Your task to perform on an android device: Search for dell xps on ebay, select the first entry, and add it to the cart. Image 0: 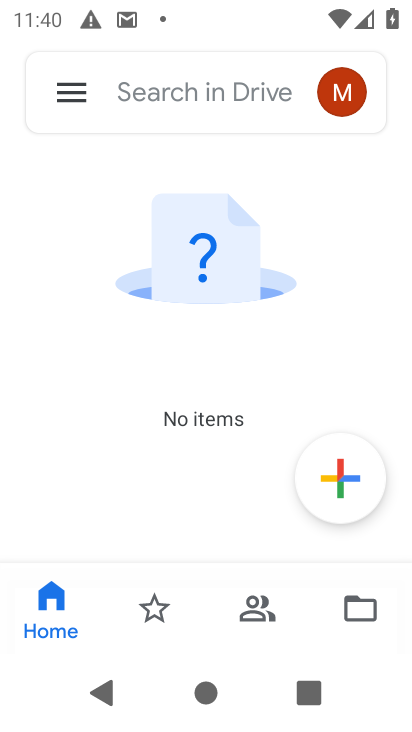
Step 0: press home button
Your task to perform on an android device: Search for dell xps on ebay, select the first entry, and add it to the cart. Image 1: 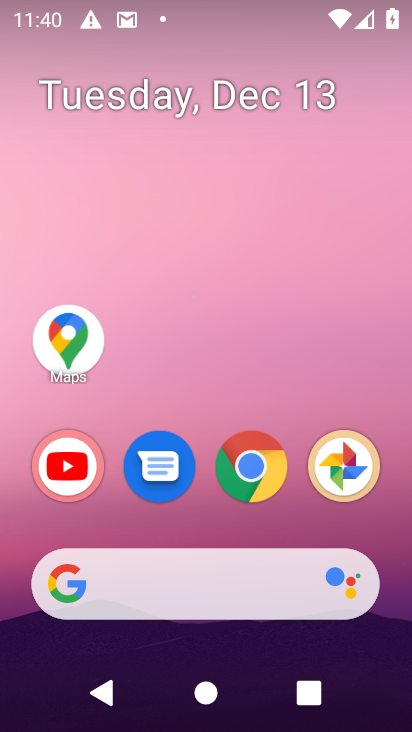
Step 1: click (156, 580)
Your task to perform on an android device: Search for dell xps on ebay, select the first entry, and add it to the cart. Image 2: 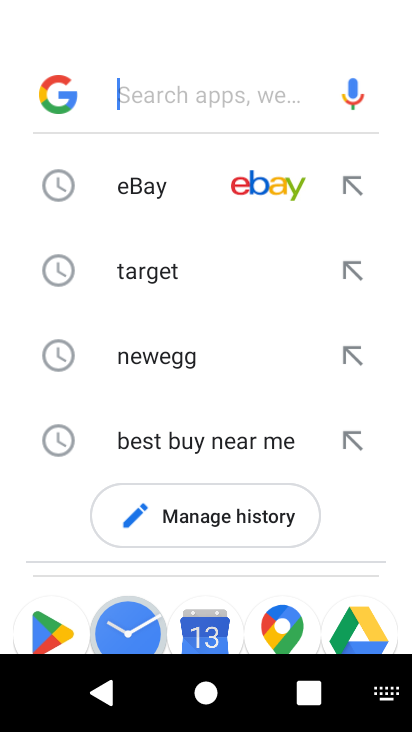
Step 2: click (120, 206)
Your task to perform on an android device: Search for dell xps on ebay, select the first entry, and add it to the cart. Image 3: 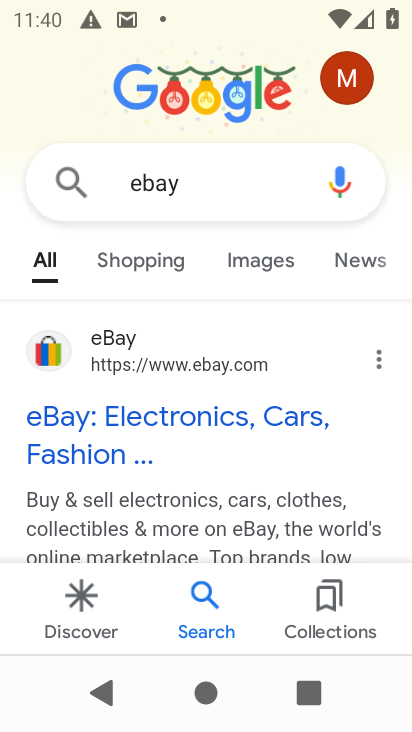
Step 3: click (147, 413)
Your task to perform on an android device: Search for dell xps on ebay, select the first entry, and add it to the cart. Image 4: 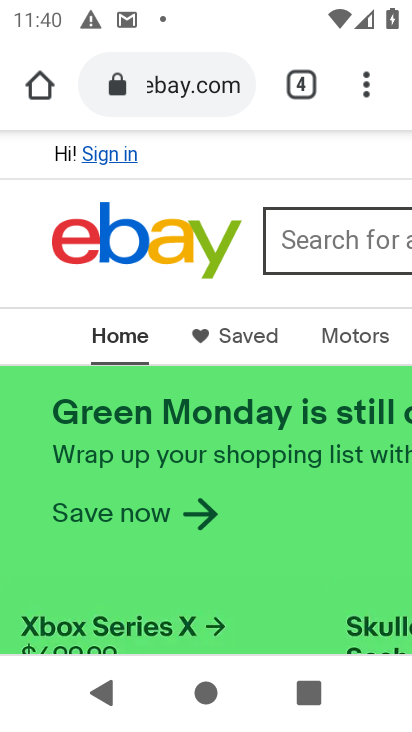
Step 4: click (303, 230)
Your task to perform on an android device: Search for dell xps on ebay, select the first entry, and add it to the cart. Image 5: 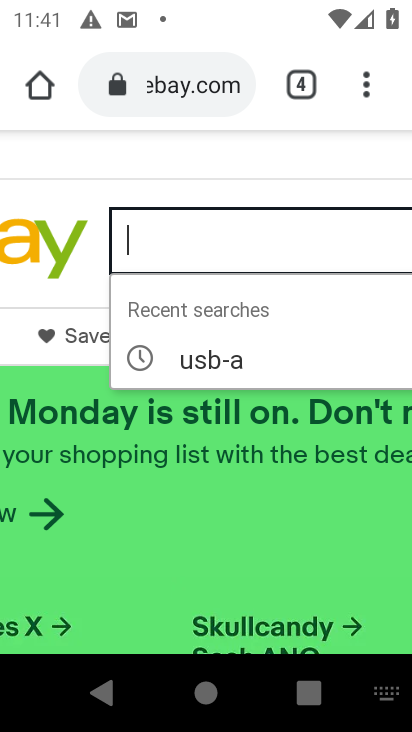
Step 5: type "dell xps"
Your task to perform on an android device: Search for dell xps on ebay, select the first entry, and add it to the cart. Image 6: 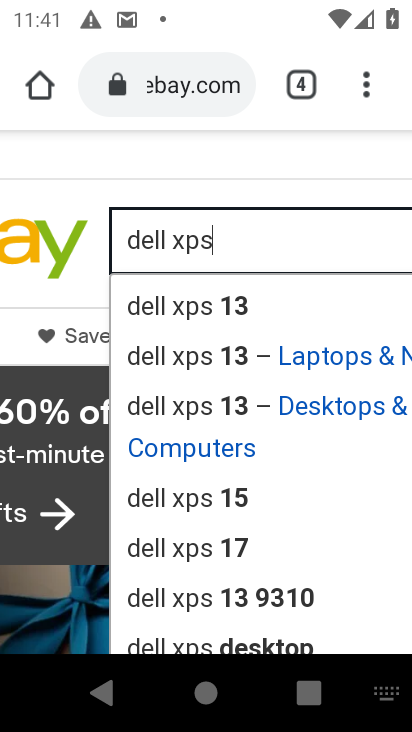
Step 6: drag from (178, 170) to (138, 170)
Your task to perform on an android device: Search for dell xps on ebay, select the first entry, and add it to the cart. Image 7: 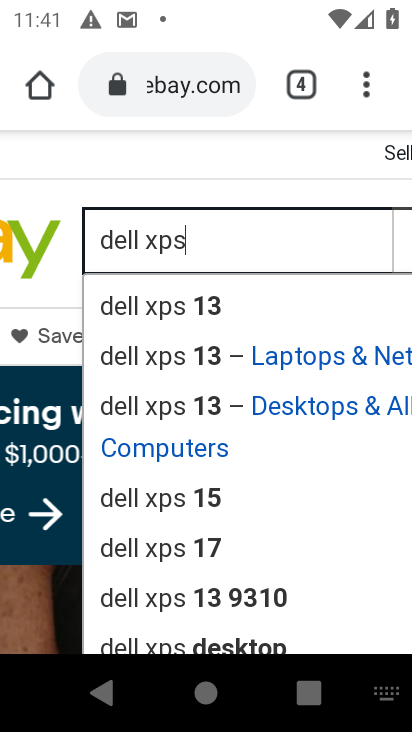
Step 7: drag from (269, 188) to (29, 168)
Your task to perform on an android device: Search for dell xps on ebay, select the first entry, and add it to the cart. Image 8: 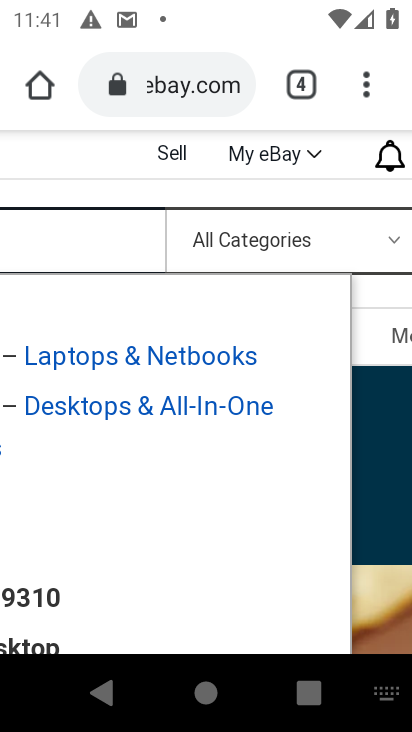
Step 8: drag from (193, 195) to (81, 187)
Your task to perform on an android device: Search for dell xps on ebay, select the first entry, and add it to the cart. Image 9: 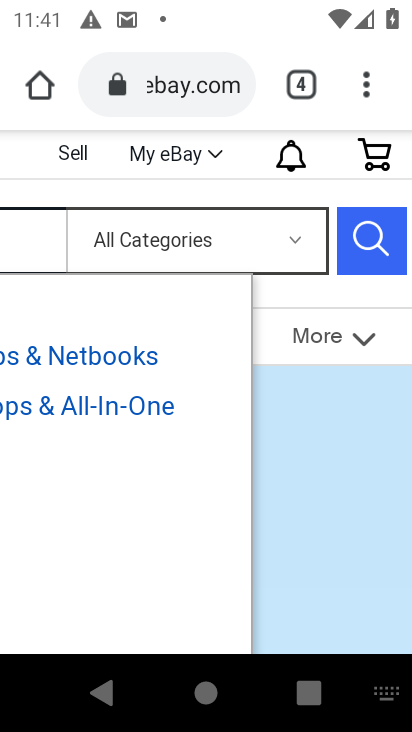
Step 9: click (378, 239)
Your task to perform on an android device: Search for dell xps on ebay, select the first entry, and add it to the cart. Image 10: 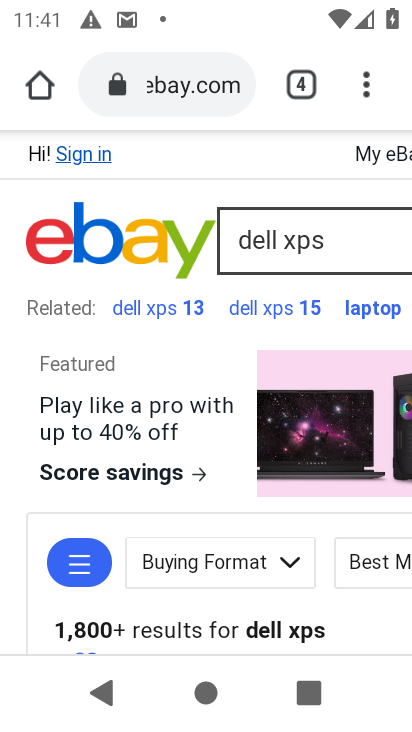
Step 10: drag from (286, 557) to (284, 355)
Your task to perform on an android device: Search for dell xps on ebay, select the first entry, and add it to the cart. Image 11: 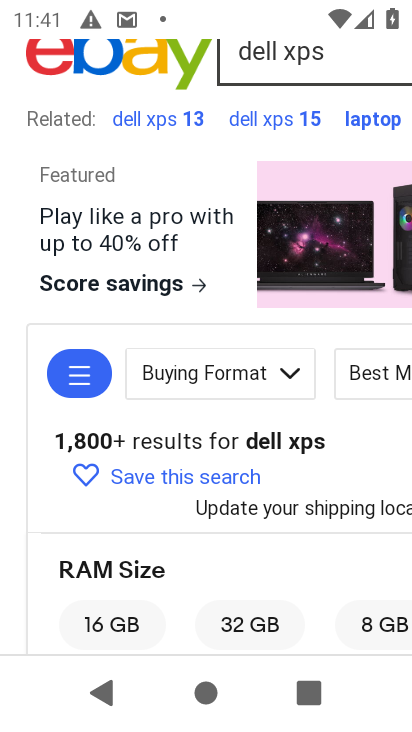
Step 11: drag from (308, 527) to (298, 404)
Your task to perform on an android device: Search for dell xps on ebay, select the first entry, and add it to the cart. Image 12: 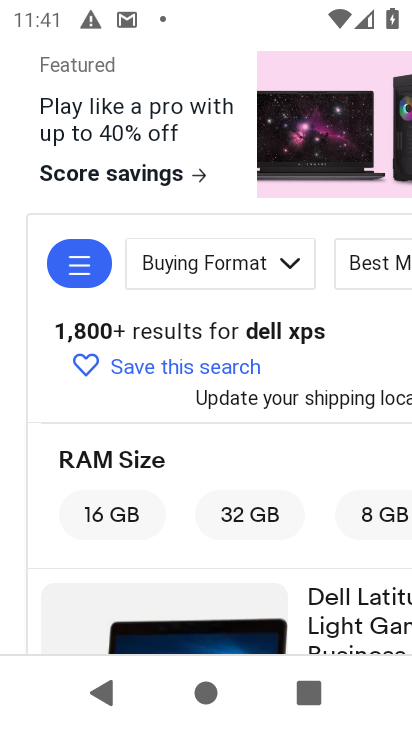
Step 12: drag from (316, 516) to (316, 421)
Your task to perform on an android device: Search for dell xps on ebay, select the first entry, and add it to the cart. Image 13: 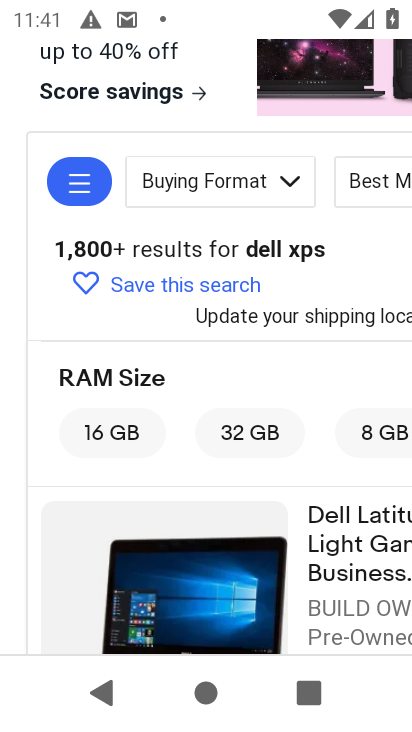
Step 13: click (316, 421)
Your task to perform on an android device: Search for dell xps on ebay, select the first entry, and add it to the cart. Image 14: 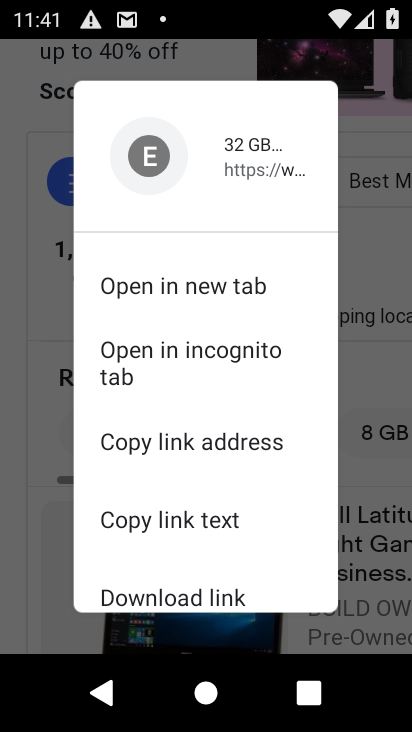
Step 14: click (378, 254)
Your task to perform on an android device: Search for dell xps on ebay, select the first entry, and add it to the cart. Image 15: 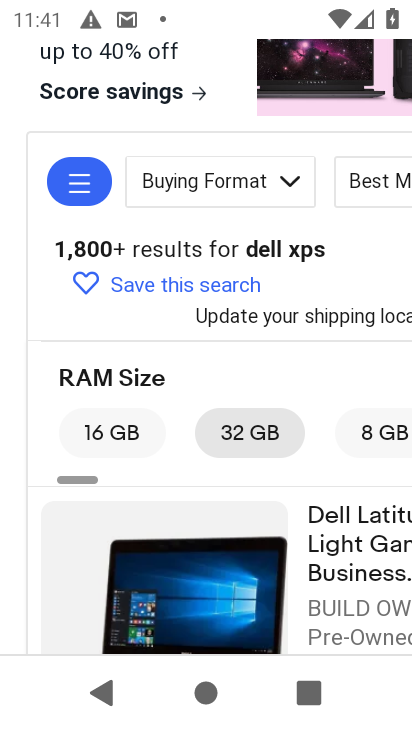
Step 15: drag from (233, 483) to (254, 356)
Your task to perform on an android device: Search for dell xps on ebay, select the first entry, and add it to the cart. Image 16: 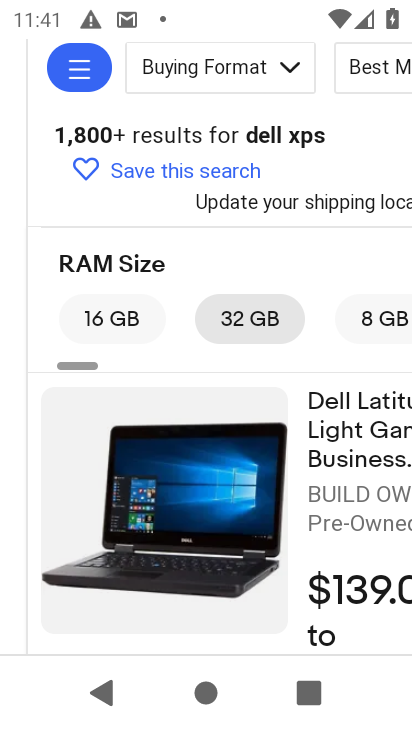
Step 16: click (336, 505)
Your task to perform on an android device: Search for dell xps on ebay, select the first entry, and add it to the cart. Image 17: 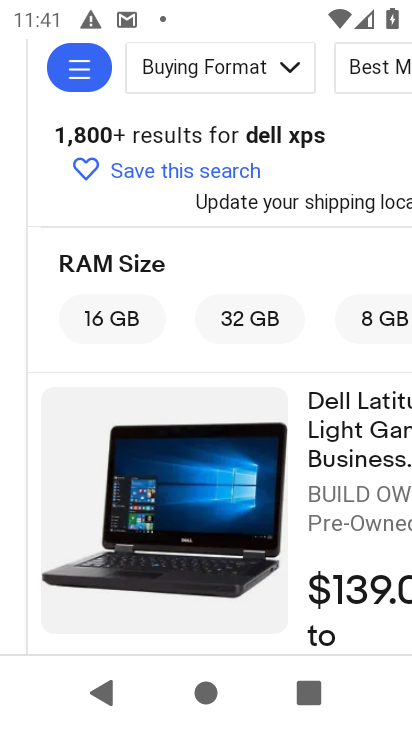
Step 17: drag from (229, 517) to (281, 309)
Your task to perform on an android device: Search for dell xps on ebay, select the first entry, and add it to the cart. Image 18: 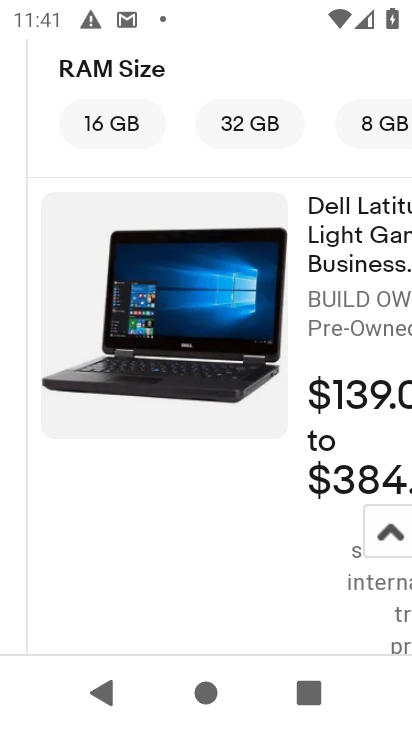
Step 18: drag from (175, 564) to (14, 518)
Your task to perform on an android device: Search for dell xps on ebay, select the first entry, and add it to the cart. Image 19: 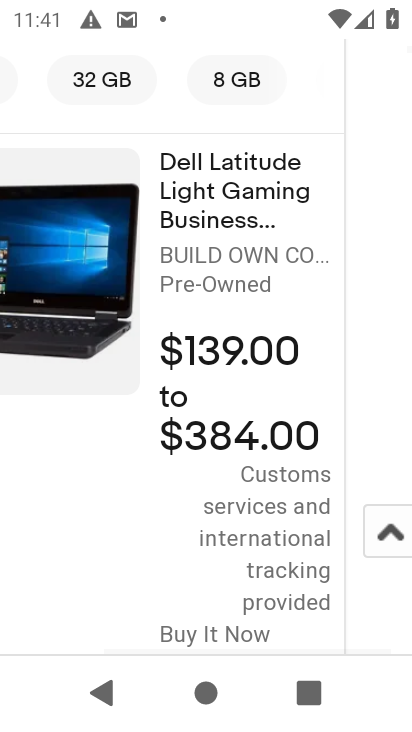
Step 19: drag from (236, 565) to (254, 336)
Your task to perform on an android device: Search for dell xps on ebay, select the first entry, and add it to the cart. Image 20: 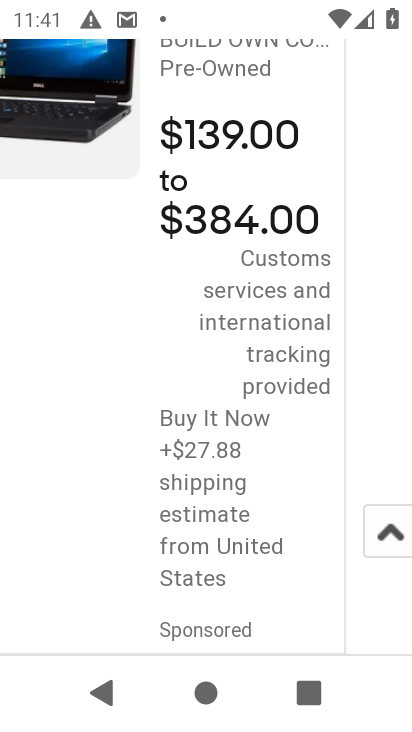
Step 20: drag from (251, 516) to (252, 290)
Your task to perform on an android device: Search for dell xps on ebay, select the first entry, and add it to the cart. Image 21: 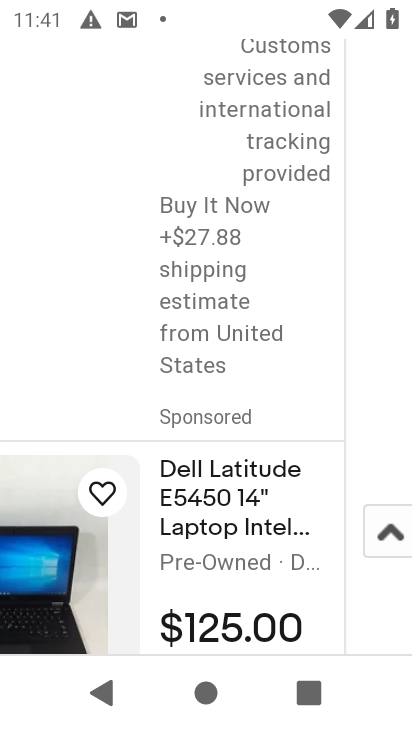
Step 21: drag from (126, 346) to (236, 346)
Your task to perform on an android device: Search for dell xps on ebay, select the first entry, and add it to the cart. Image 22: 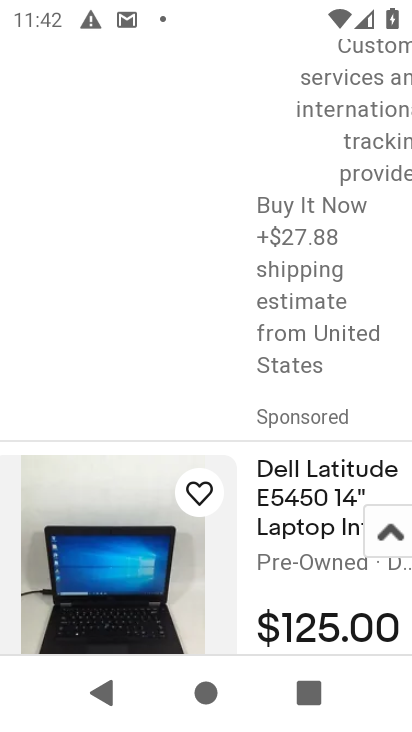
Step 22: drag from (282, 355) to (286, 554)
Your task to perform on an android device: Search for dell xps on ebay, select the first entry, and add it to the cart. Image 23: 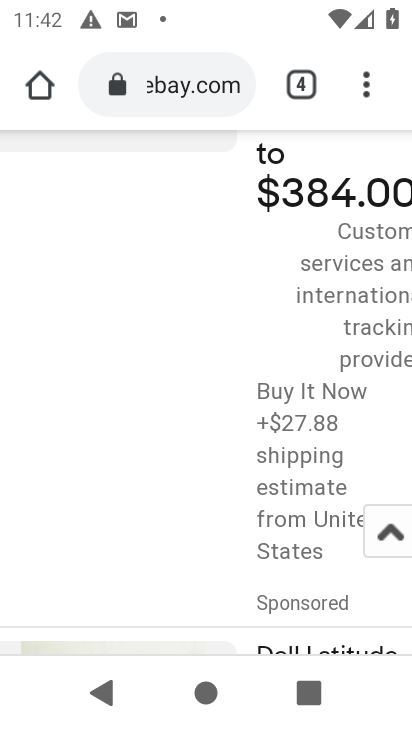
Step 23: drag from (351, 290) to (339, 382)
Your task to perform on an android device: Search for dell xps on ebay, select the first entry, and add it to the cart. Image 24: 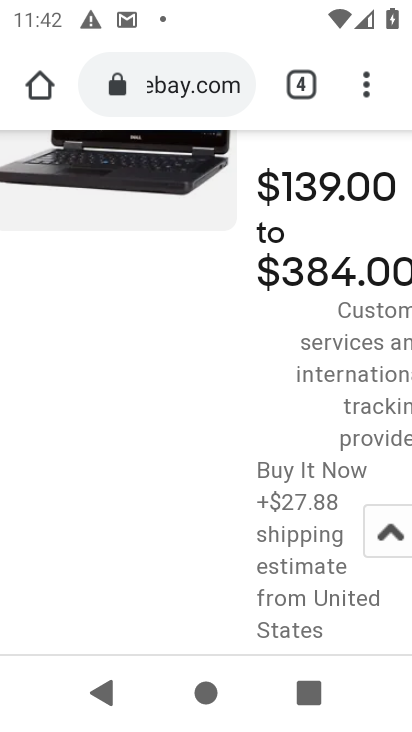
Step 24: click (209, 163)
Your task to perform on an android device: Search for dell xps on ebay, select the first entry, and add it to the cart. Image 25: 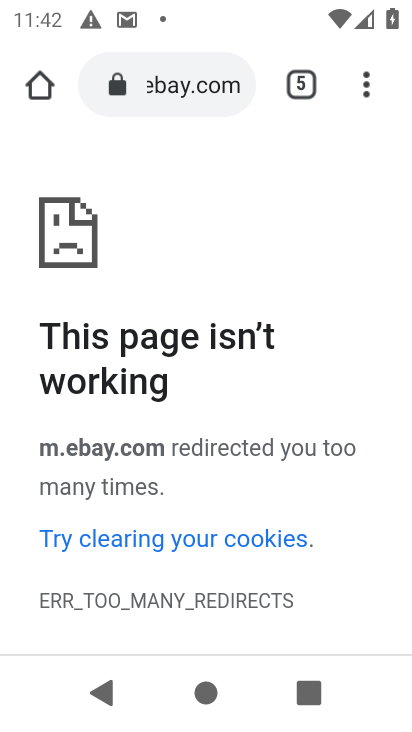
Step 25: task complete